Your task to perform on an android device: turn on notifications settings in the gmail app Image 0: 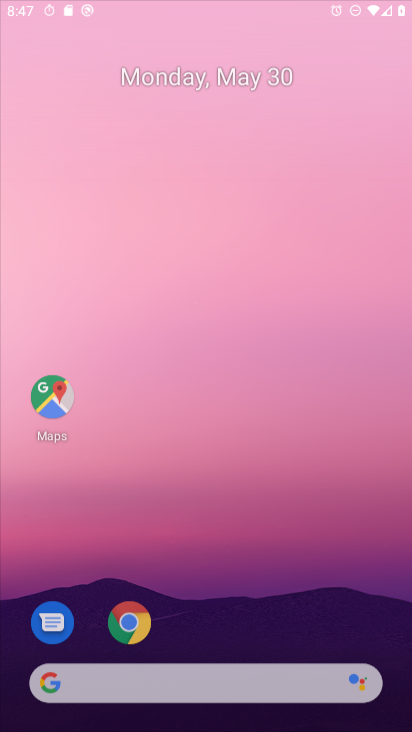
Step 0: click (246, 101)
Your task to perform on an android device: turn on notifications settings in the gmail app Image 1: 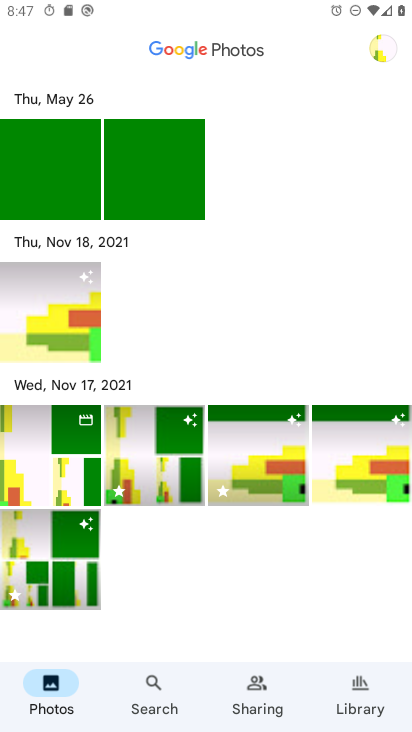
Step 1: press home button
Your task to perform on an android device: turn on notifications settings in the gmail app Image 2: 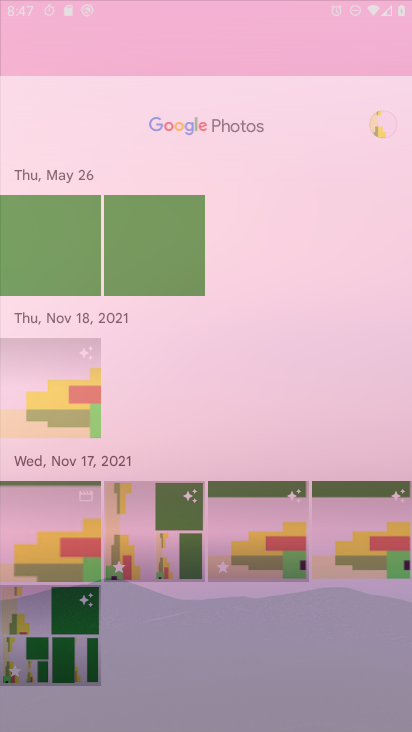
Step 2: drag from (370, 652) to (305, 139)
Your task to perform on an android device: turn on notifications settings in the gmail app Image 3: 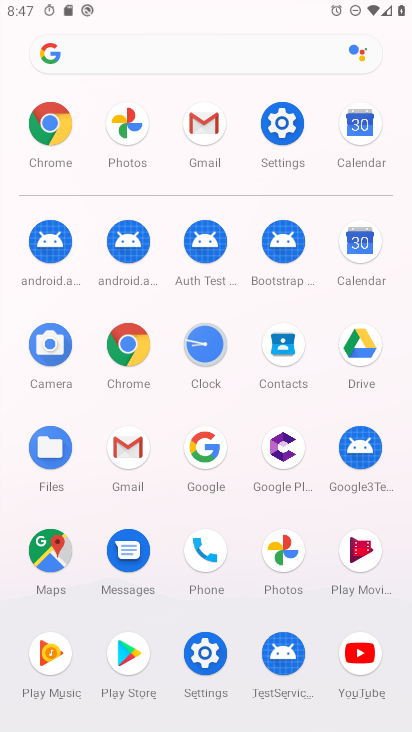
Step 3: click (208, 123)
Your task to perform on an android device: turn on notifications settings in the gmail app Image 4: 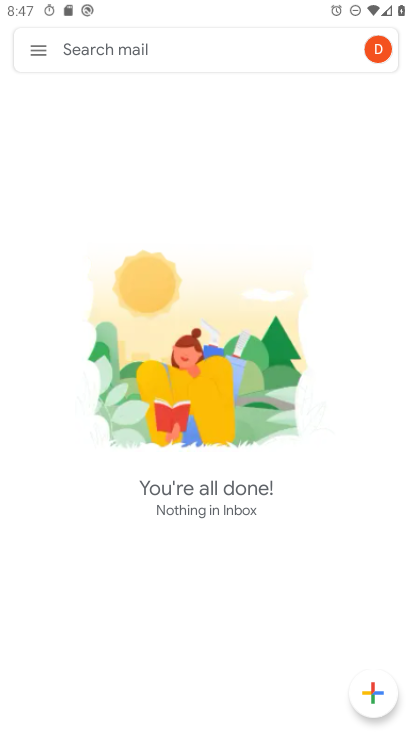
Step 4: click (47, 49)
Your task to perform on an android device: turn on notifications settings in the gmail app Image 5: 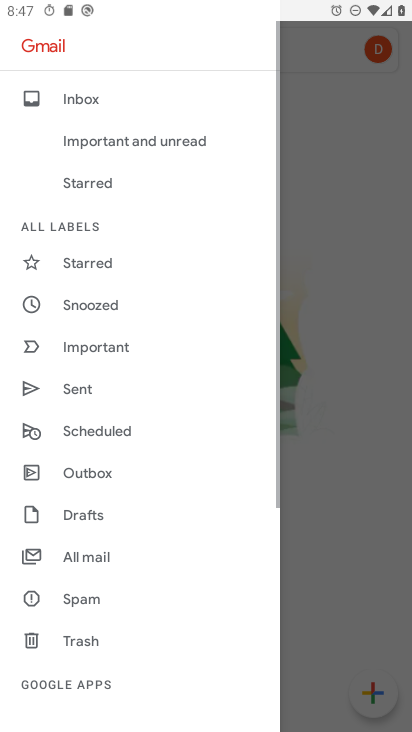
Step 5: drag from (163, 636) to (196, 96)
Your task to perform on an android device: turn on notifications settings in the gmail app Image 6: 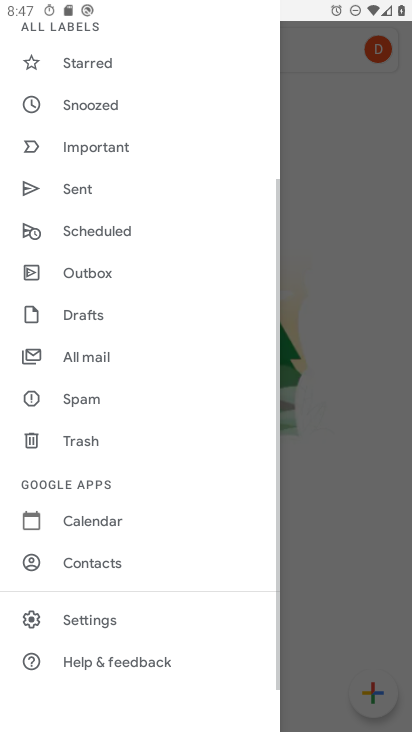
Step 6: click (112, 612)
Your task to perform on an android device: turn on notifications settings in the gmail app Image 7: 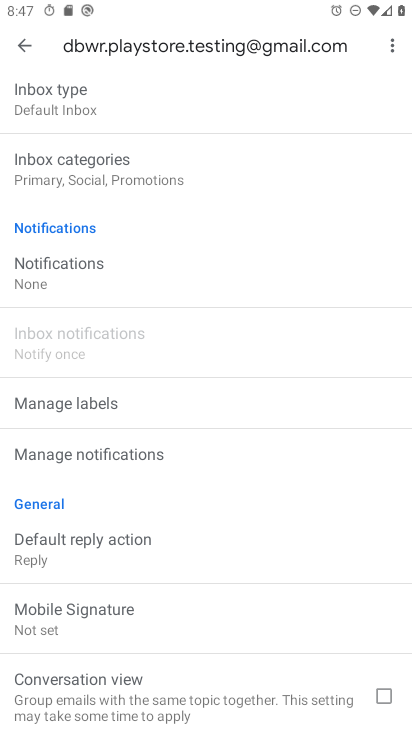
Step 7: click (52, 264)
Your task to perform on an android device: turn on notifications settings in the gmail app Image 8: 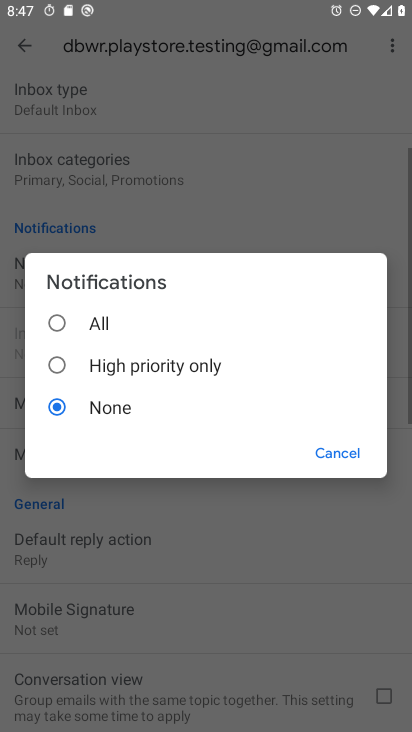
Step 8: click (81, 325)
Your task to perform on an android device: turn on notifications settings in the gmail app Image 9: 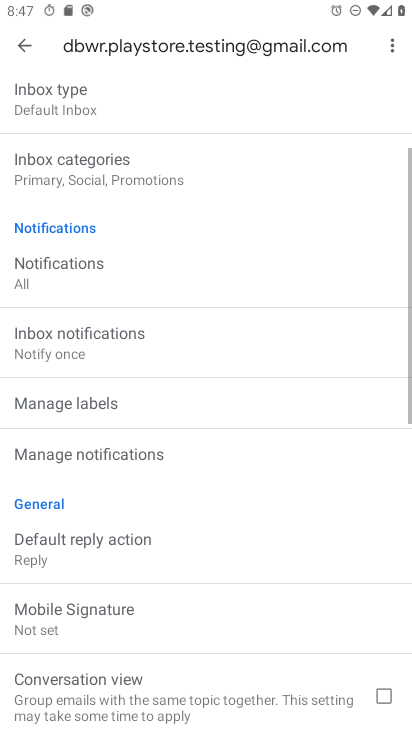
Step 9: task complete